Your task to perform on an android device: Toggle the flashlight Image 0: 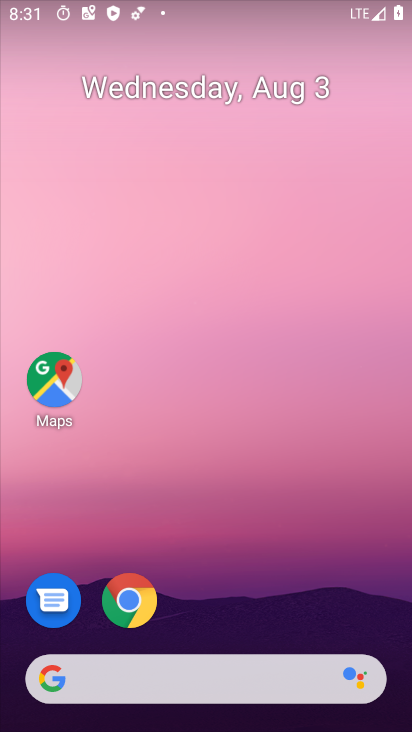
Step 0: drag from (221, 634) to (222, 1)
Your task to perform on an android device: Toggle the flashlight Image 1: 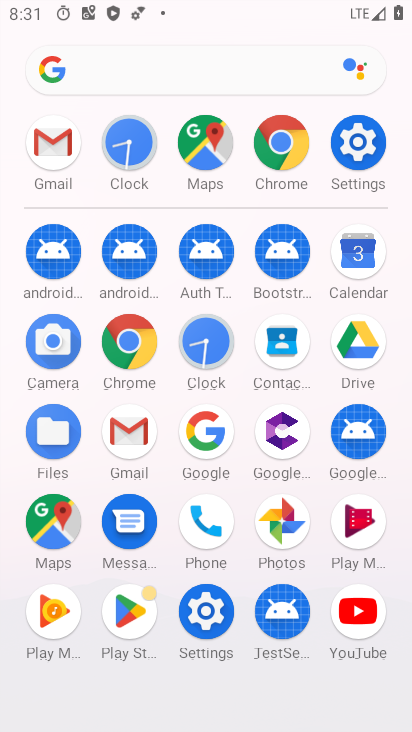
Step 1: click (364, 164)
Your task to perform on an android device: Toggle the flashlight Image 2: 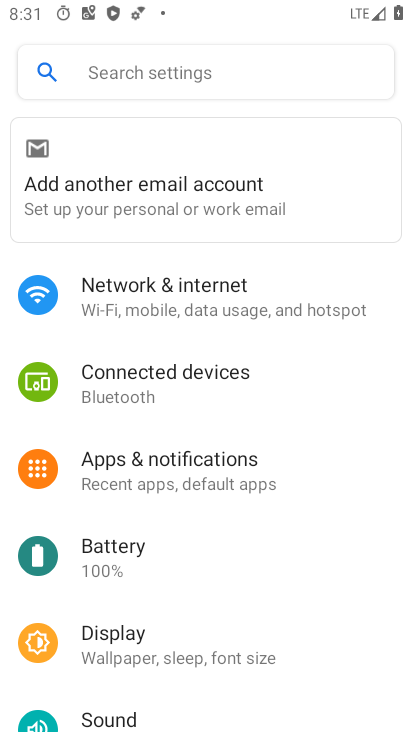
Step 2: click (183, 63)
Your task to perform on an android device: Toggle the flashlight Image 3: 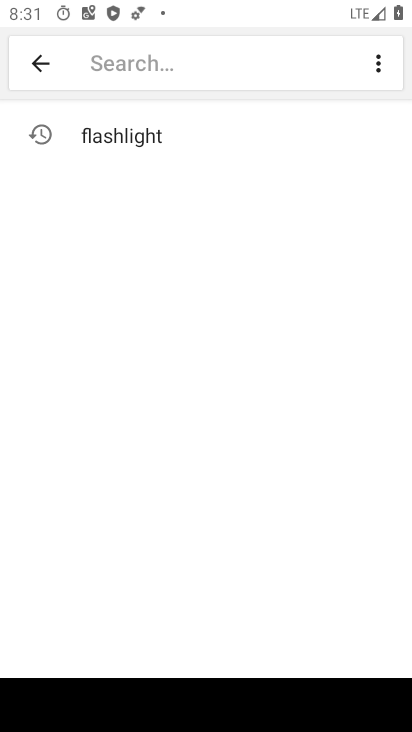
Step 3: type "flashlight"
Your task to perform on an android device: Toggle the flashlight Image 4: 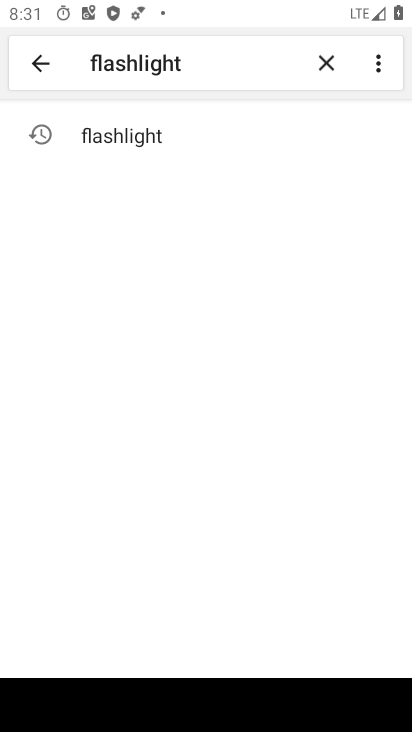
Step 4: click (66, 147)
Your task to perform on an android device: Toggle the flashlight Image 5: 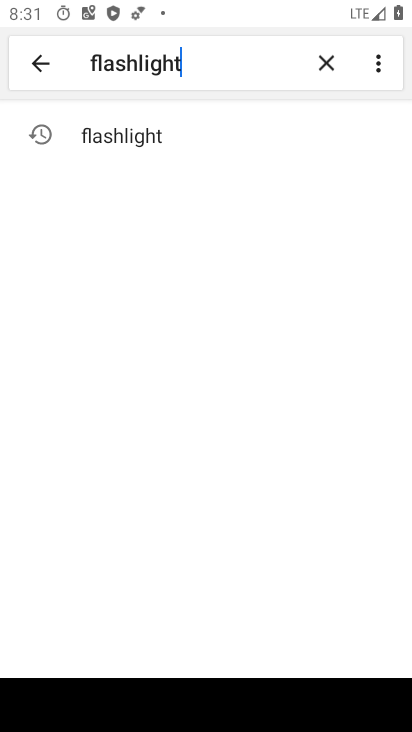
Step 5: click (74, 138)
Your task to perform on an android device: Toggle the flashlight Image 6: 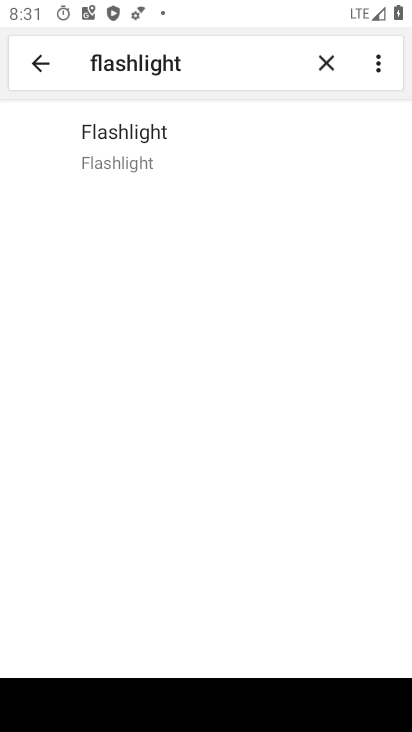
Step 6: click (113, 164)
Your task to perform on an android device: Toggle the flashlight Image 7: 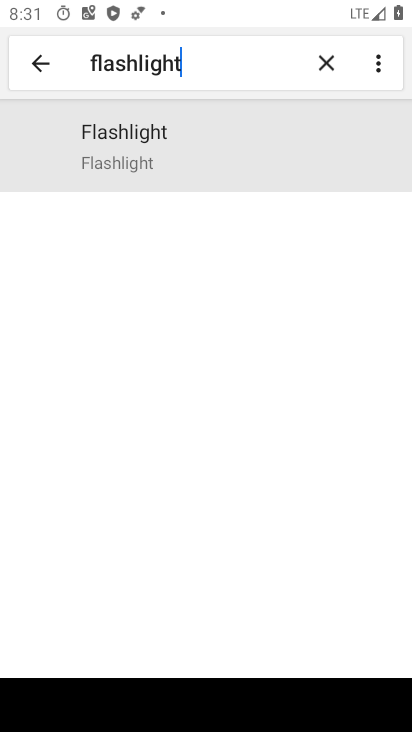
Step 7: click (236, 386)
Your task to perform on an android device: Toggle the flashlight Image 8: 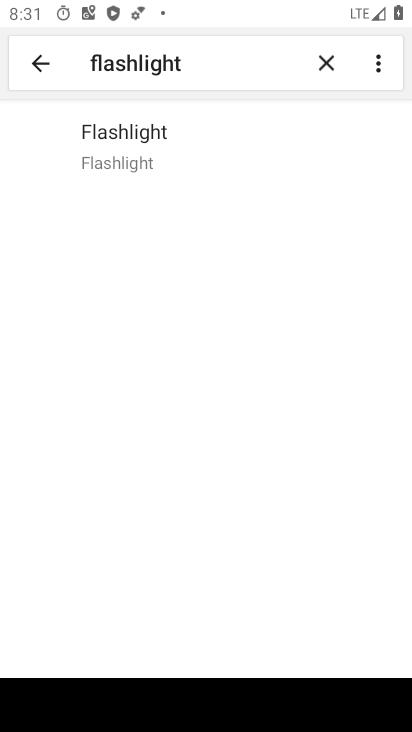
Step 8: task complete